Your task to perform on an android device: turn notification dots off Image 0: 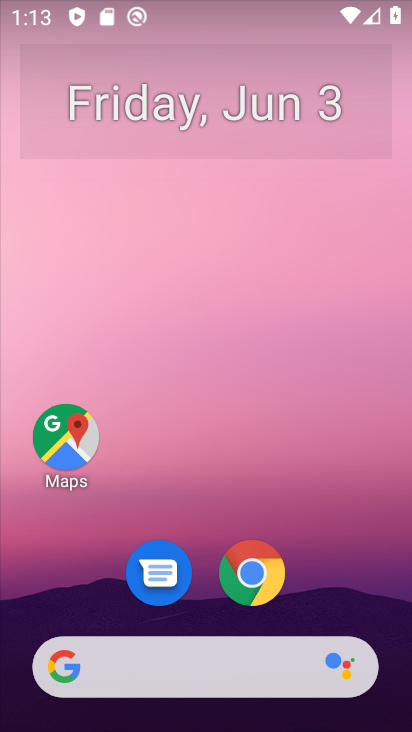
Step 0: drag from (337, 560) to (252, 164)
Your task to perform on an android device: turn notification dots off Image 1: 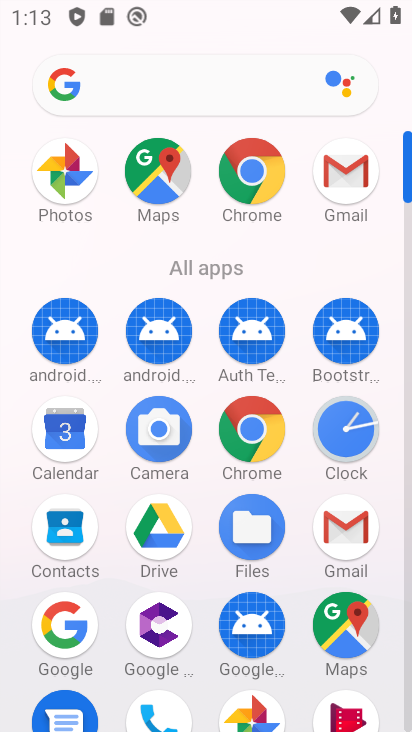
Step 1: task complete